Your task to perform on an android device: turn off smart reply in the gmail app Image 0: 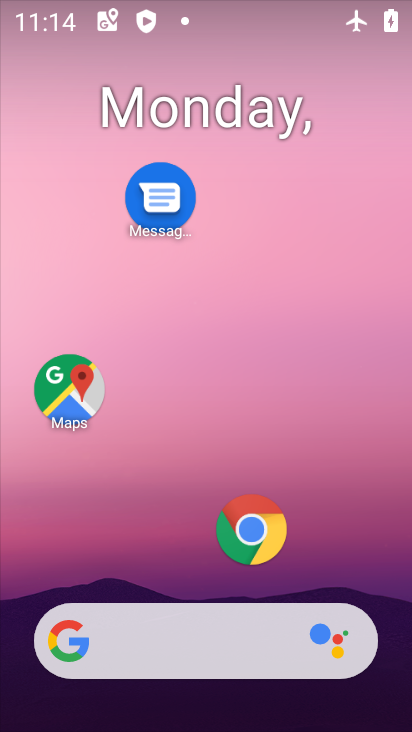
Step 0: drag from (199, 525) to (337, 40)
Your task to perform on an android device: turn off smart reply in the gmail app Image 1: 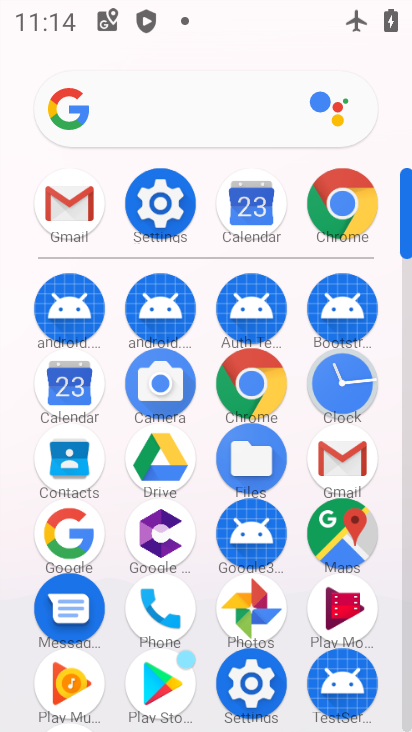
Step 1: click (338, 470)
Your task to perform on an android device: turn off smart reply in the gmail app Image 2: 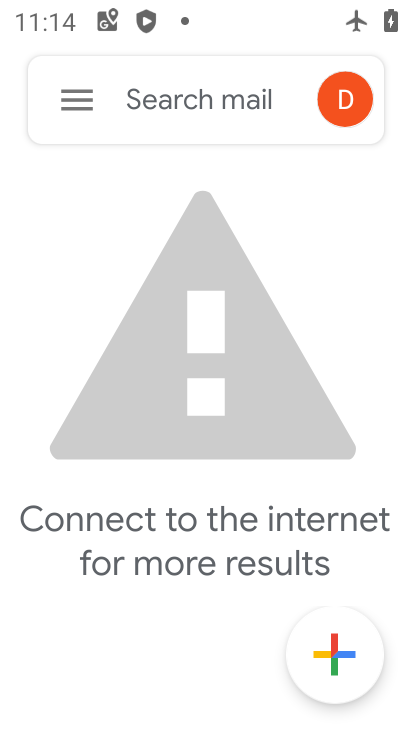
Step 2: click (52, 110)
Your task to perform on an android device: turn off smart reply in the gmail app Image 3: 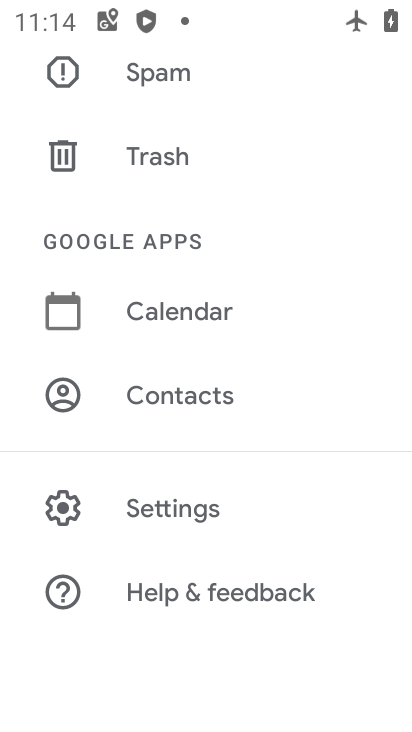
Step 3: click (145, 514)
Your task to perform on an android device: turn off smart reply in the gmail app Image 4: 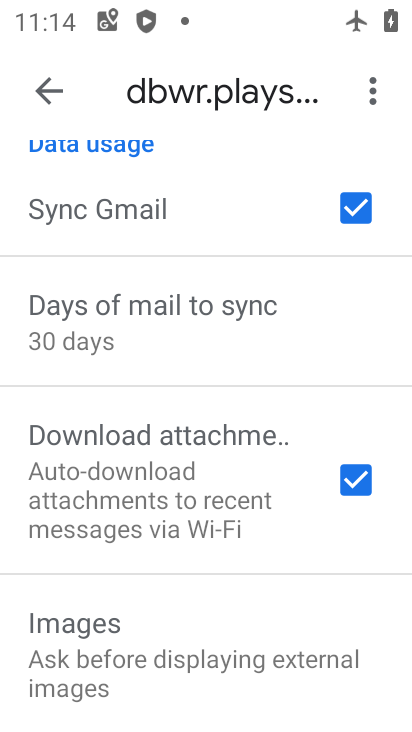
Step 4: drag from (130, 661) to (237, 322)
Your task to perform on an android device: turn off smart reply in the gmail app Image 5: 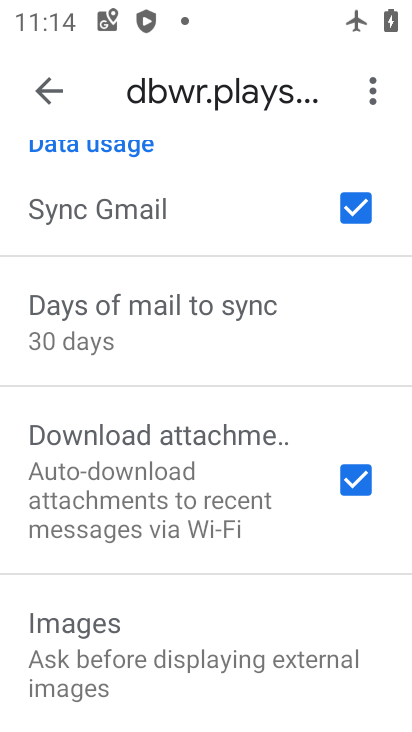
Step 5: drag from (146, 590) to (231, 311)
Your task to perform on an android device: turn off smart reply in the gmail app Image 6: 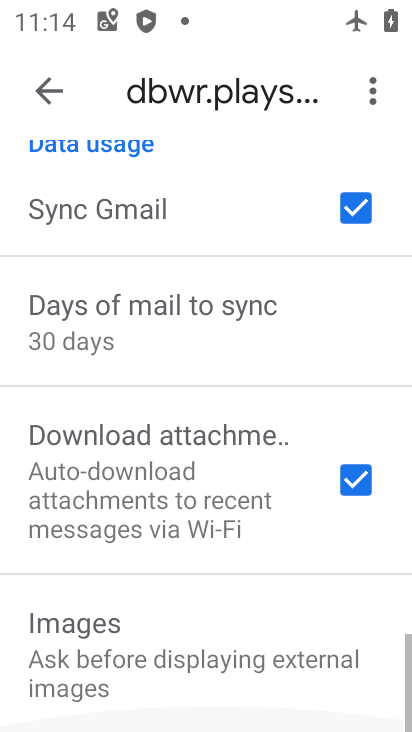
Step 6: drag from (231, 282) to (190, 654)
Your task to perform on an android device: turn off smart reply in the gmail app Image 7: 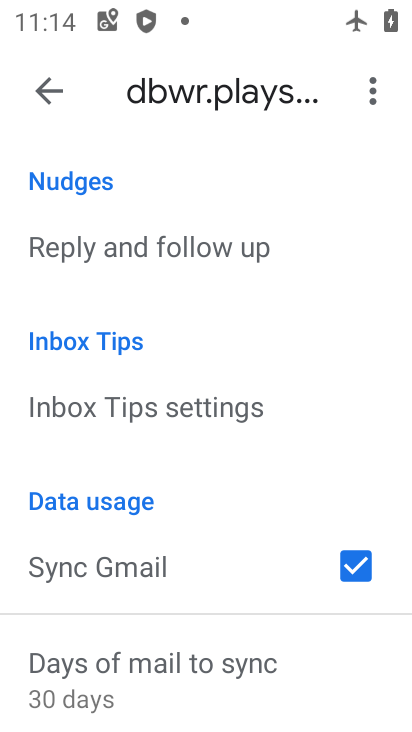
Step 7: drag from (218, 402) to (192, 649)
Your task to perform on an android device: turn off smart reply in the gmail app Image 8: 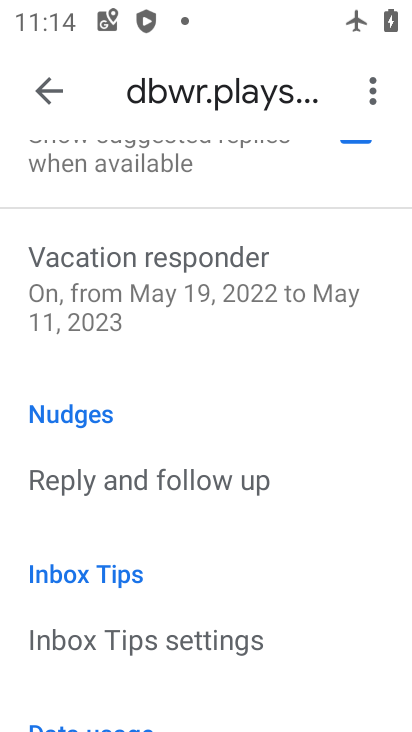
Step 8: click (268, 305)
Your task to perform on an android device: turn off smart reply in the gmail app Image 9: 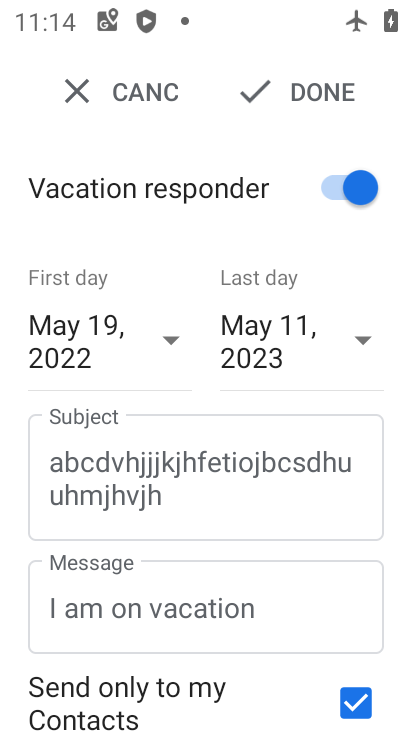
Step 9: press back button
Your task to perform on an android device: turn off smart reply in the gmail app Image 10: 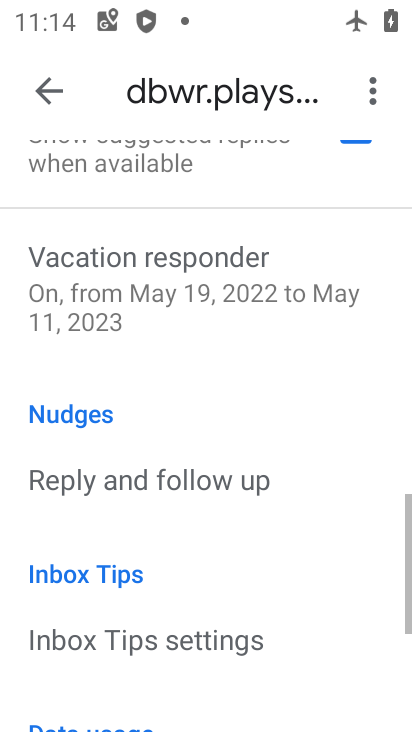
Step 10: drag from (284, 317) to (302, 527)
Your task to perform on an android device: turn off smart reply in the gmail app Image 11: 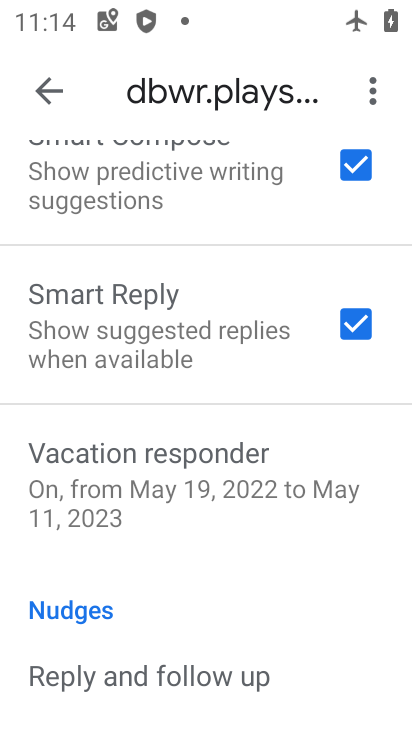
Step 11: click (350, 320)
Your task to perform on an android device: turn off smart reply in the gmail app Image 12: 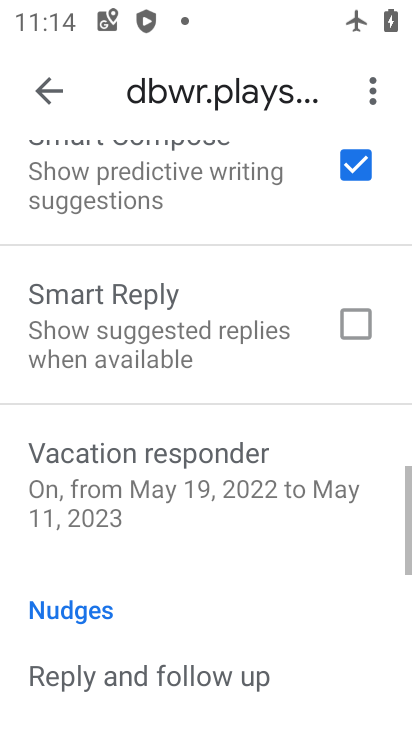
Step 12: task complete